Your task to perform on an android device: Open location settings Image 0: 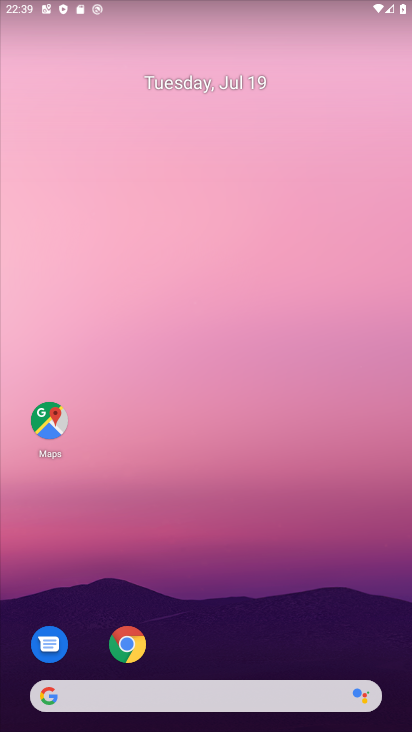
Step 0: drag from (206, 731) to (206, 277)
Your task to perform on an android device: Open location settings Image 1: 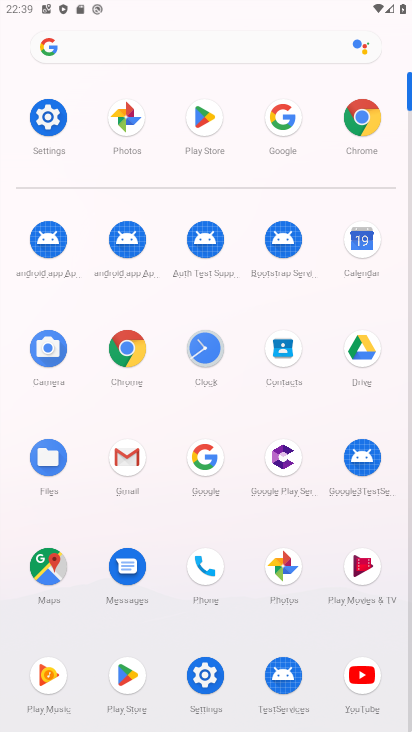
Step 1: click (45, 113)
Your task to perform on an android device: Open location settings Image 2: 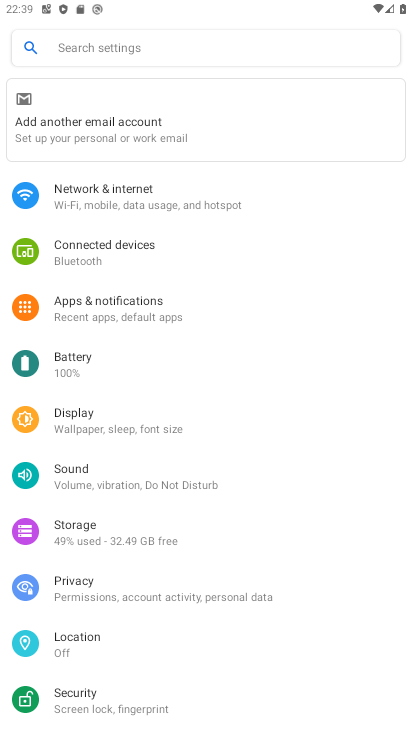
Step 2: click (75, 636)
Your task to perform on an android device: Open location settings Image 3: 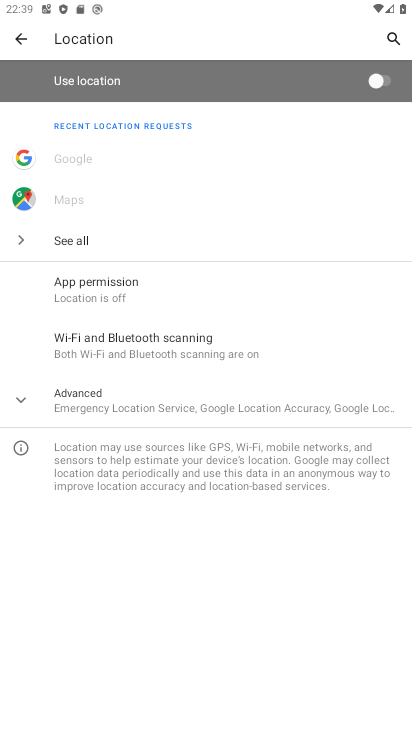
Step 3: task complete